Your task to perform on an android device: install app "Google Calendar" Image 0: 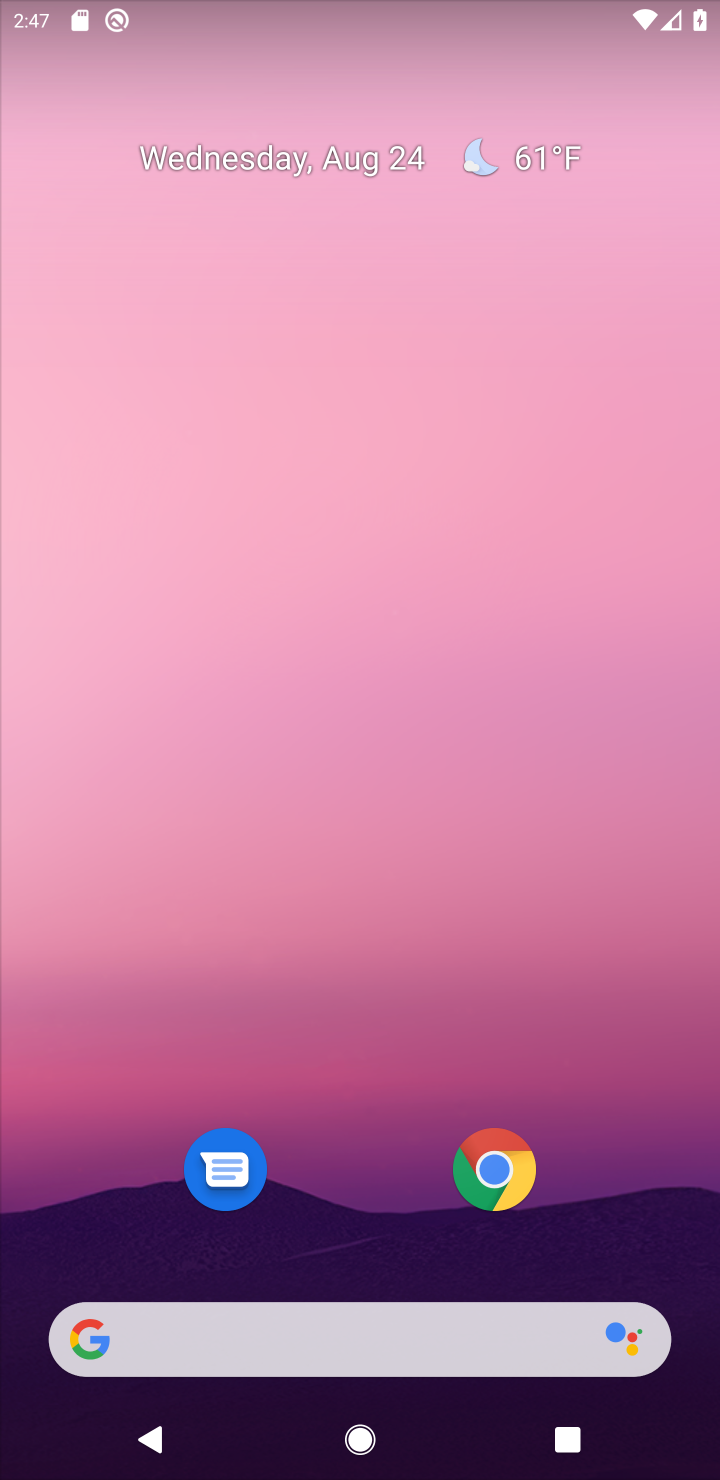
Step 0: drag from (352, 1250) to (670, 80)
Your task to perform on an android device: install app "Google Calendar" Image 1: 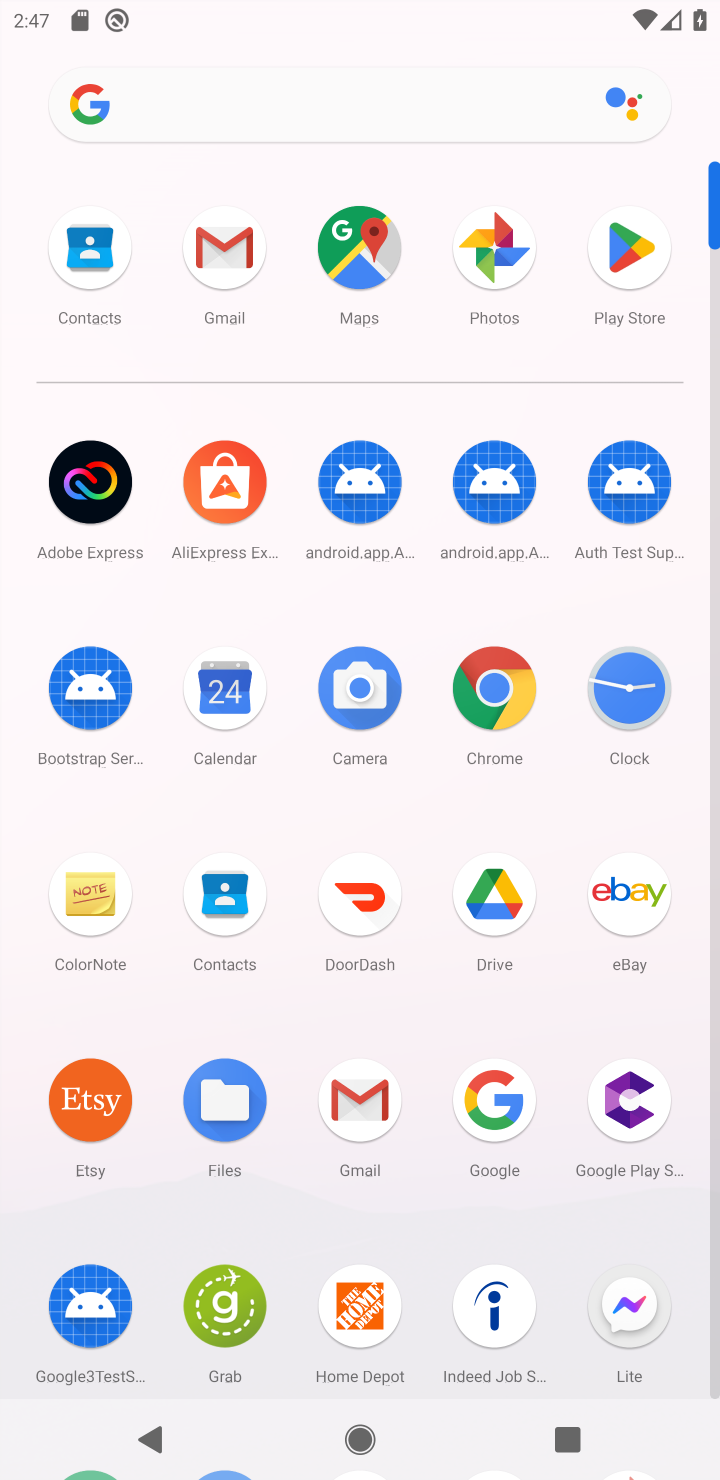
Step 1: click (632, 262)
Your task to perform on an android device: install app "Google Calendar" Image 2: 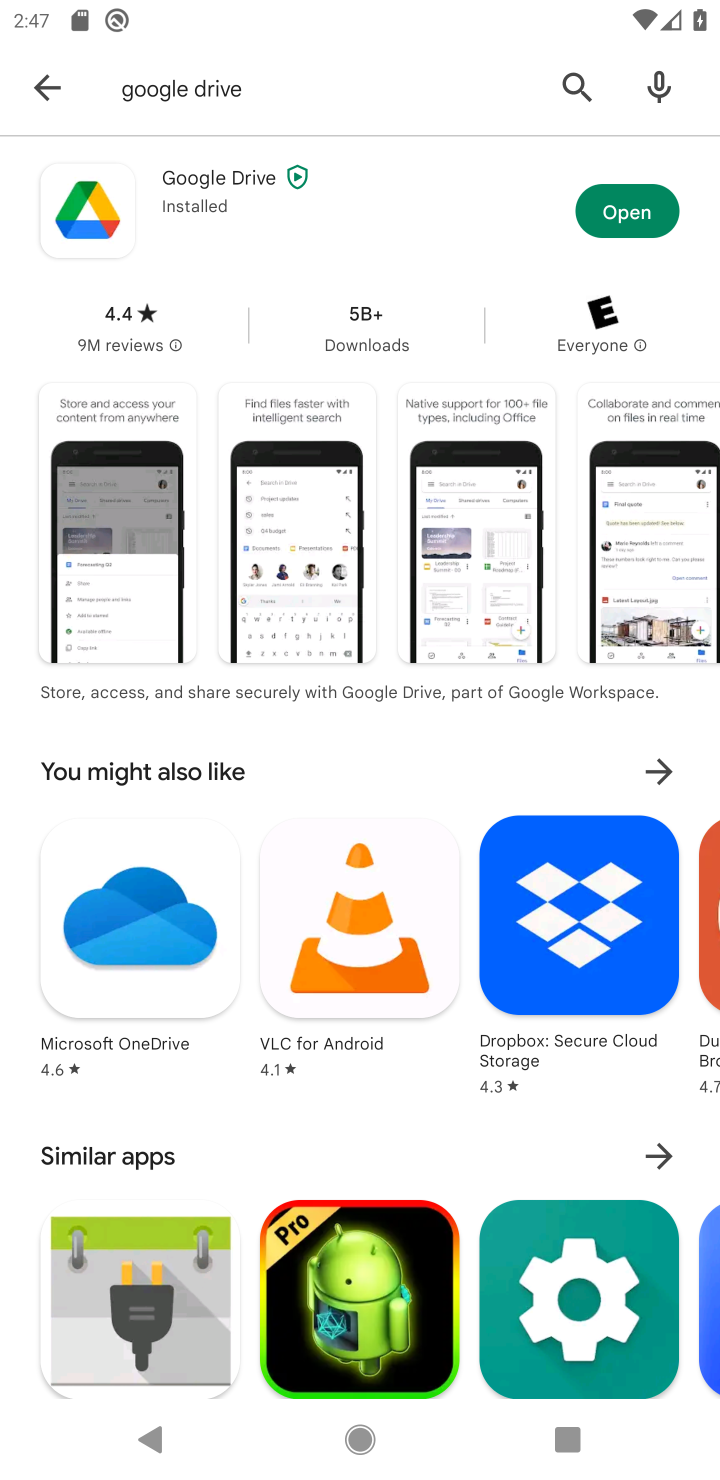
Step 2: click (580, 69)
Your task to perform on an android device: install app "Google Calendar" Image 3: 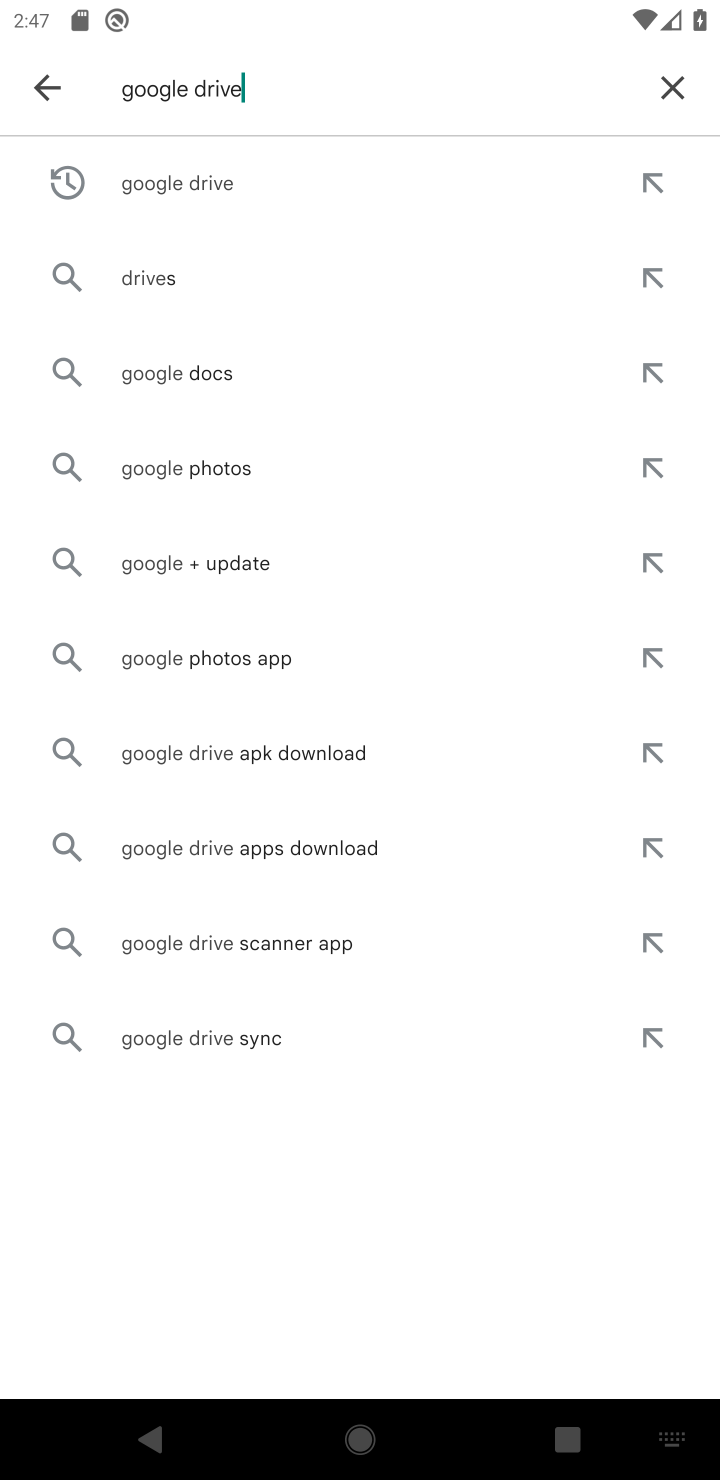
Step 3: click (675, 92)
Your task to perform on an android device: install app "Google Calendar" Image 4: 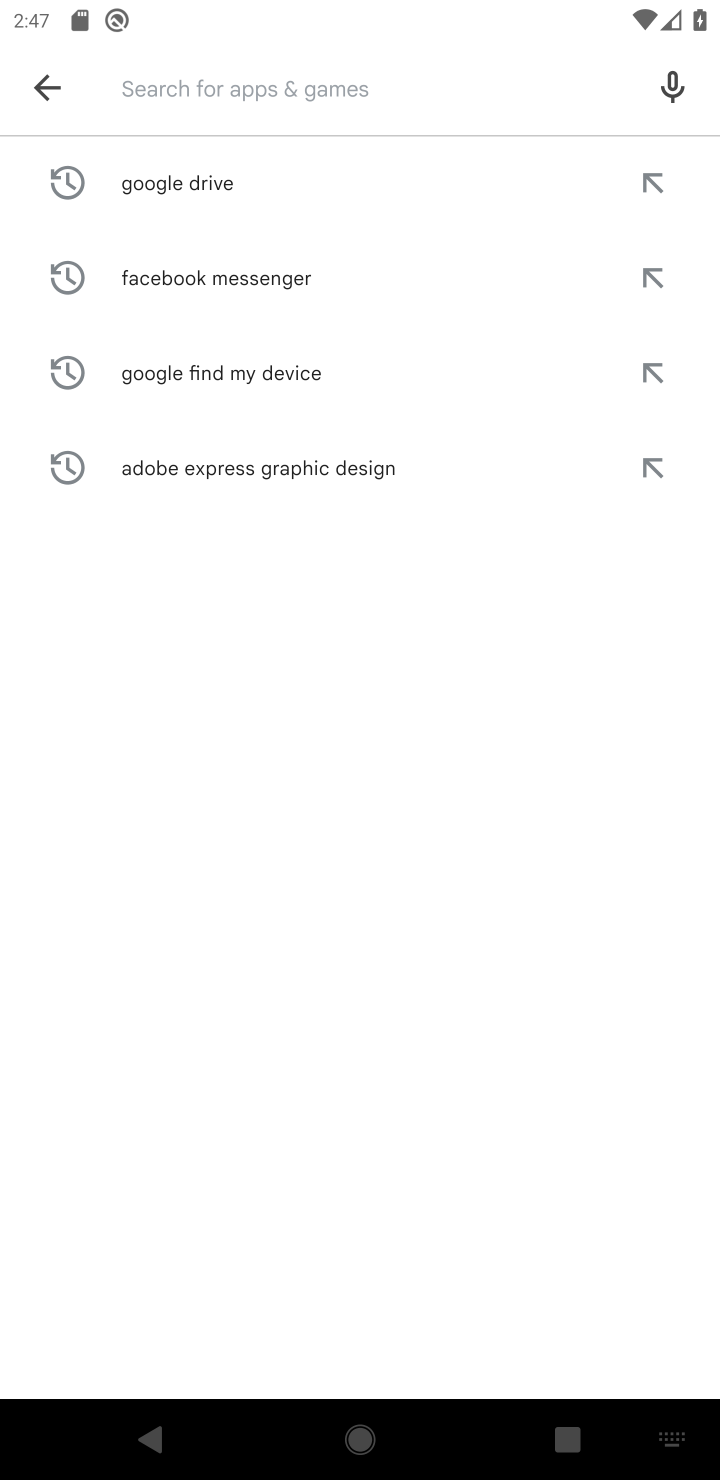
Step 4: type "Google Calenda"
Your task to perform on an android device: install app "Google Calendar" Image 5: 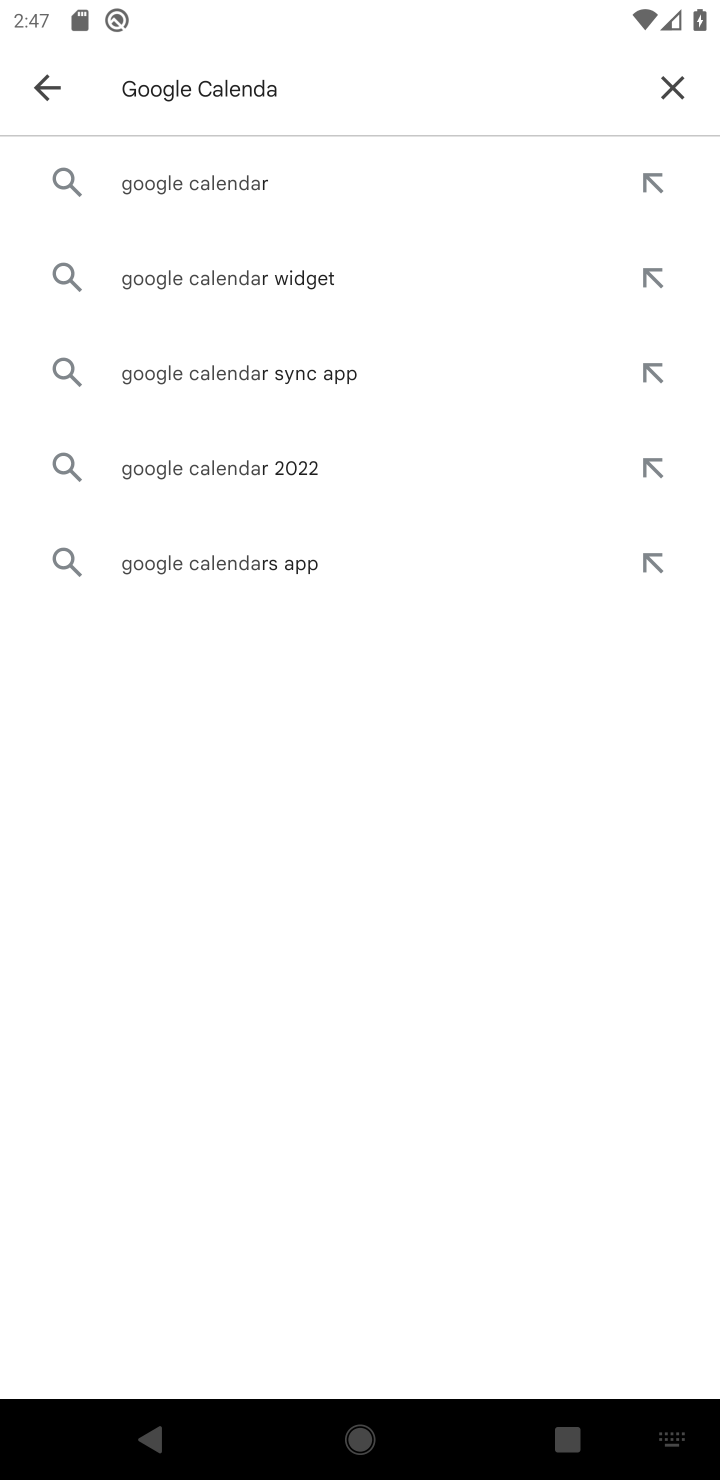
Step 5: click (283, 186)
Your task to perform on an android device: install app "Google Calendar" Image 6: 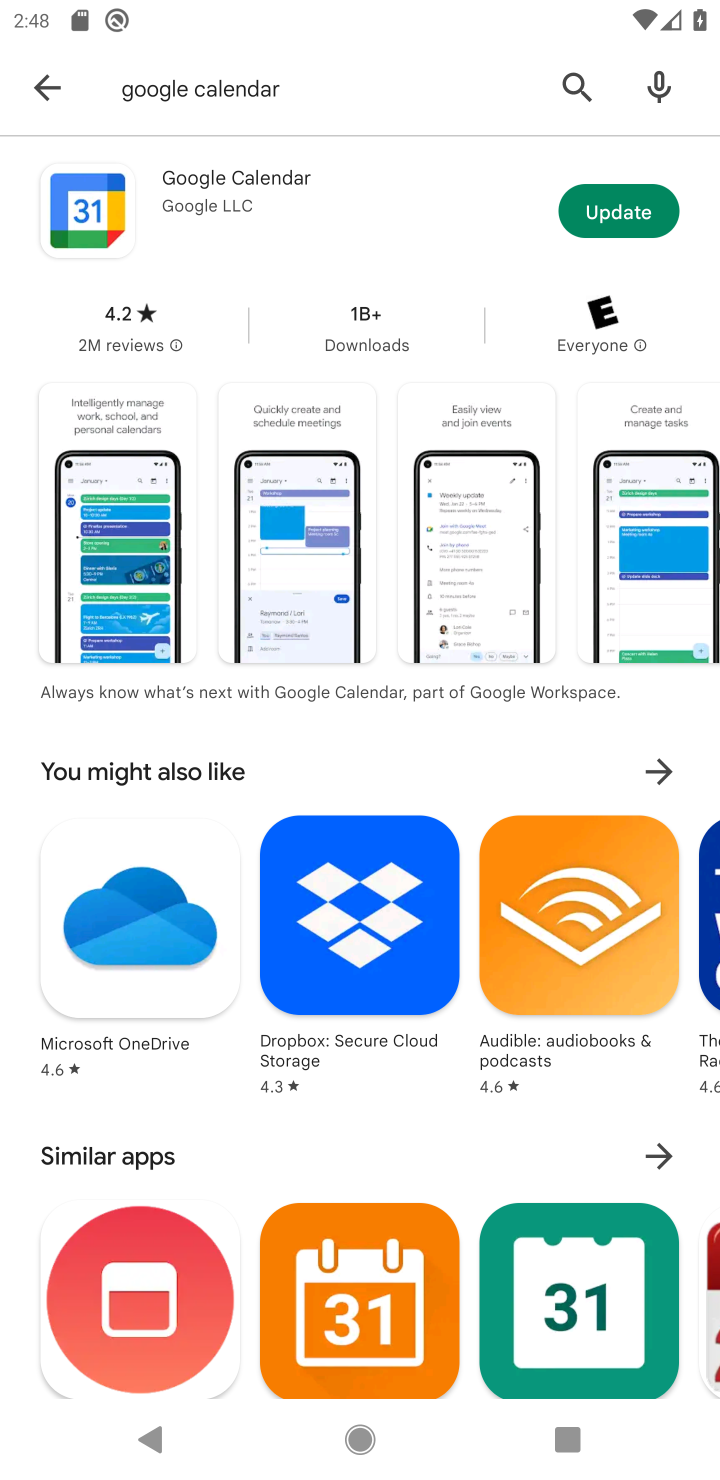
Step 6: click (574, 224)
Your task to perform on an android device: install app "Google Calendar" Image 7: 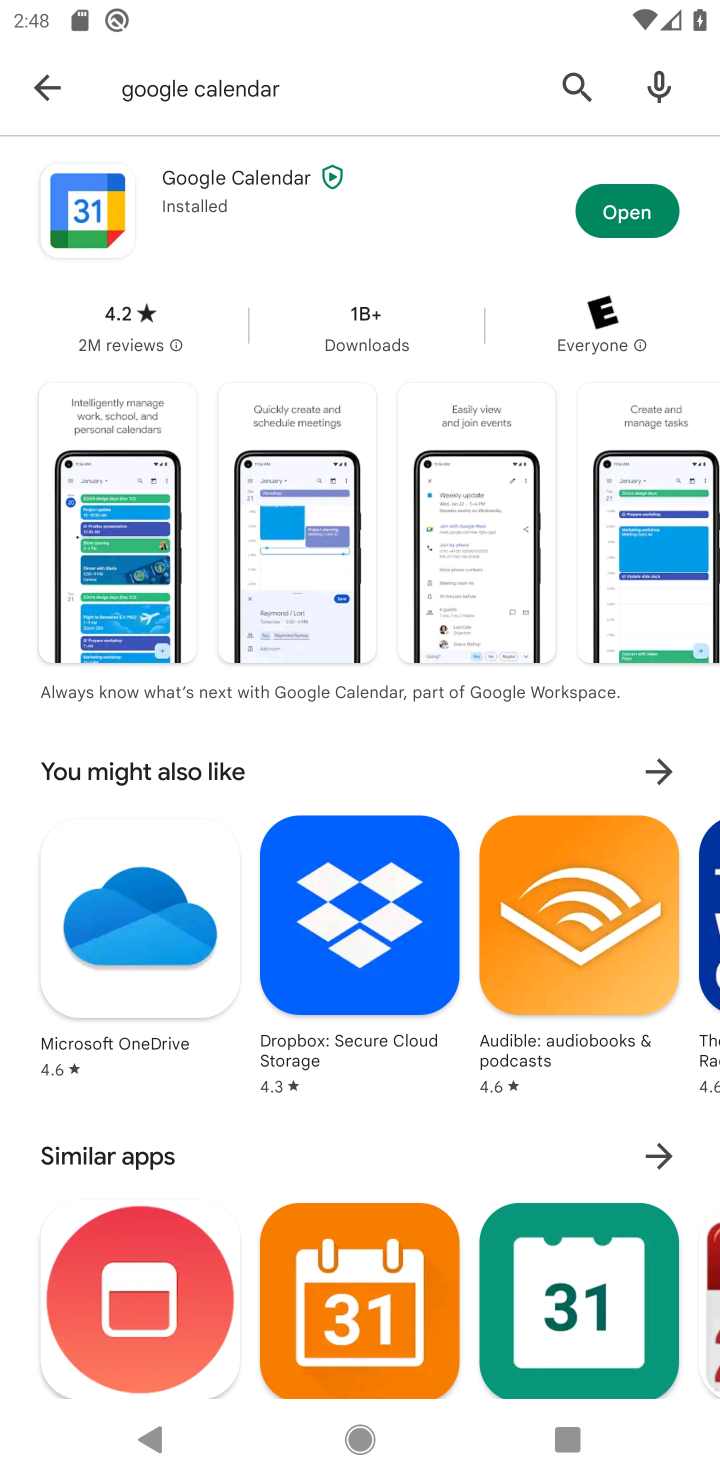
Step 7: task complete